Your task to perform on an android device: Search for pizza restaurants on Maps Image 0: 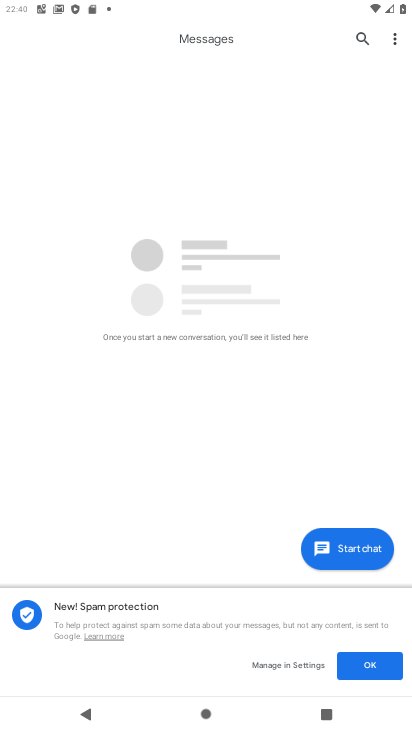
Step 0: press home button
Your task to perform on an android device: Search for pizza restaurants on Maps Image 1: 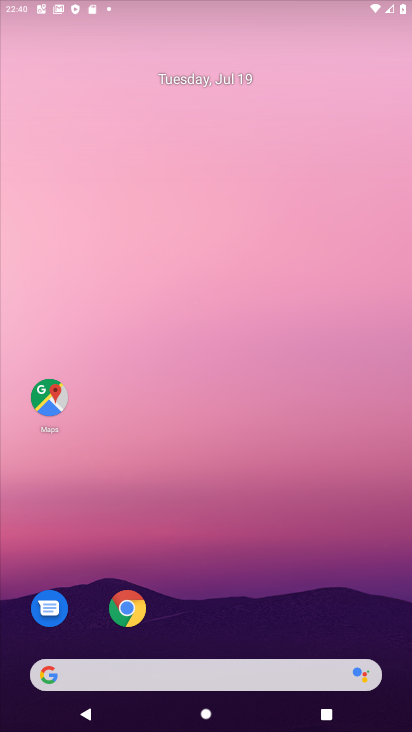
Step 1: drag from (266, 544) to (245, 0)
Your task to perform on an android device: Search for pizza restaurants on Maps Image 2: 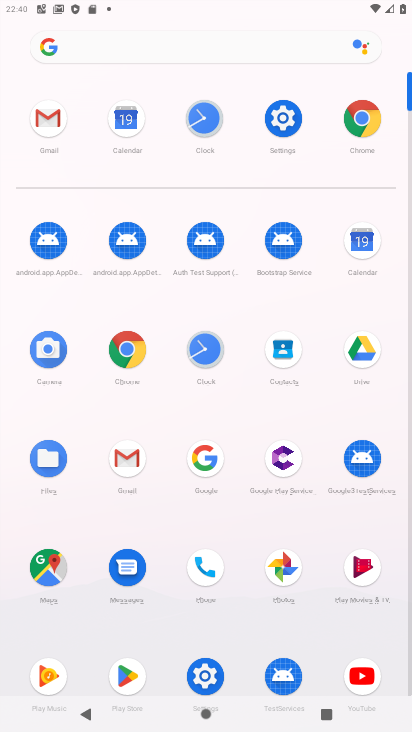
Step 2: click (51, 563)
Your task to perform on an android device: Search for pizza restaurants on Maps Image 3: 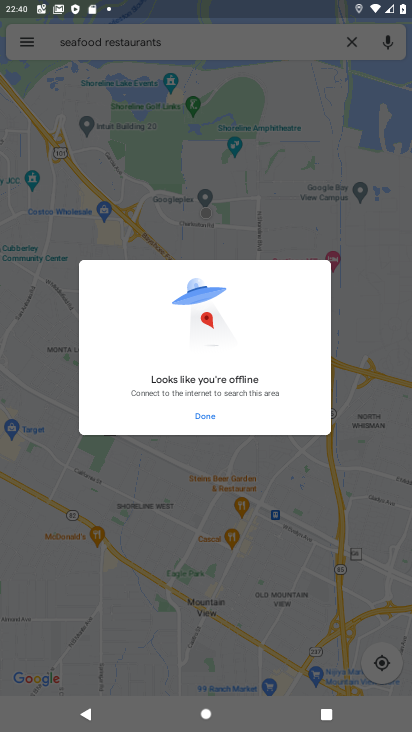
Step 3: click (202, 418)
Your task to perform on an android device: Search for pizza restaurants on Maps Image 4: 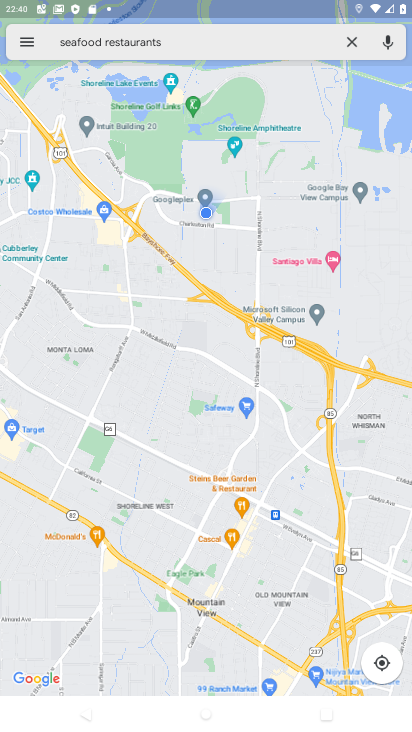
Step 4: click (174, 44)
Your task to perform on an android device: Search for pizza restaurants on Maps Image 5: 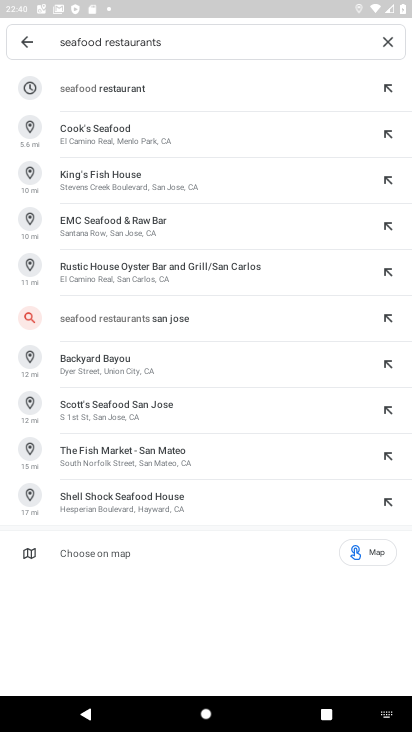
Step 5: click (396, 44)
Your task to perform on an android device: Search for pizza restaurants on Maps Image 6: 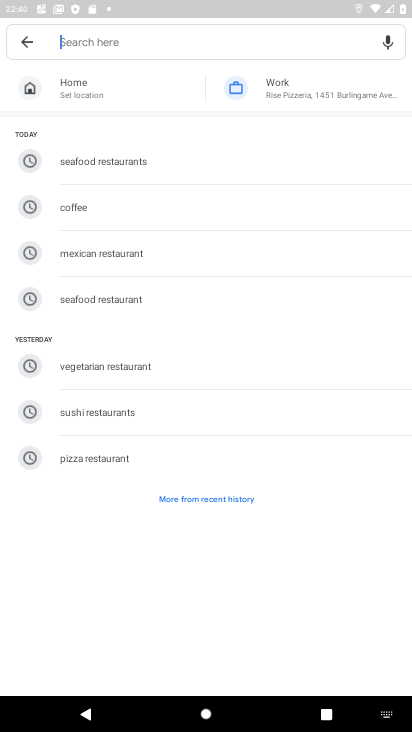
Step 6: type "pizza restaurants"
Your task to perform on an android device: Search for pizza restaurants on Maps Image 7: 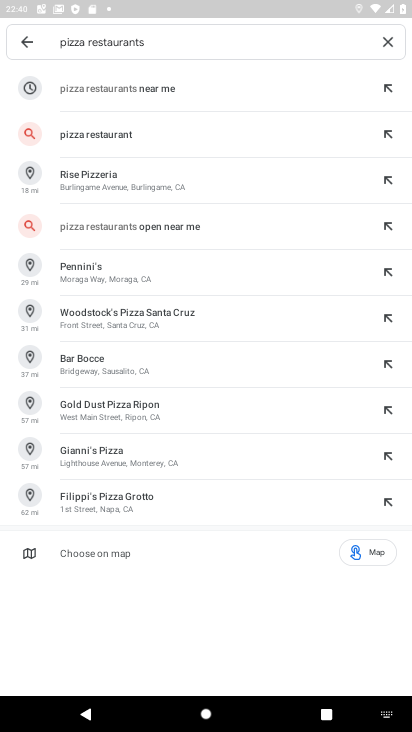
Step 7: press enter
Your task to perform on an android device: Search for pizza restaurants on Maps Image 8: 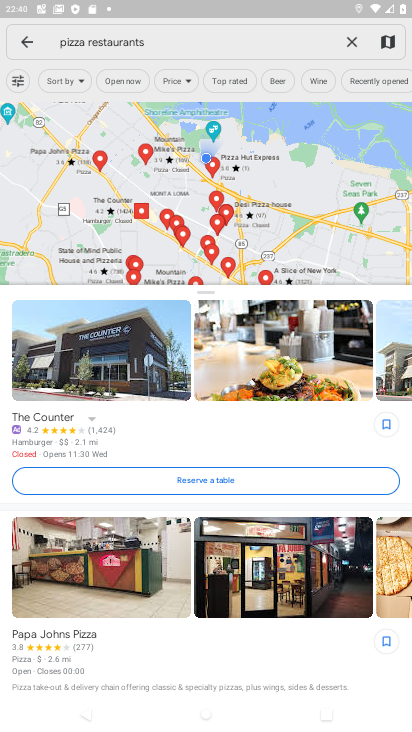
Step 8: task complete